Your task to perform on an android device: What's on my calendar tomorrow? Image 0: 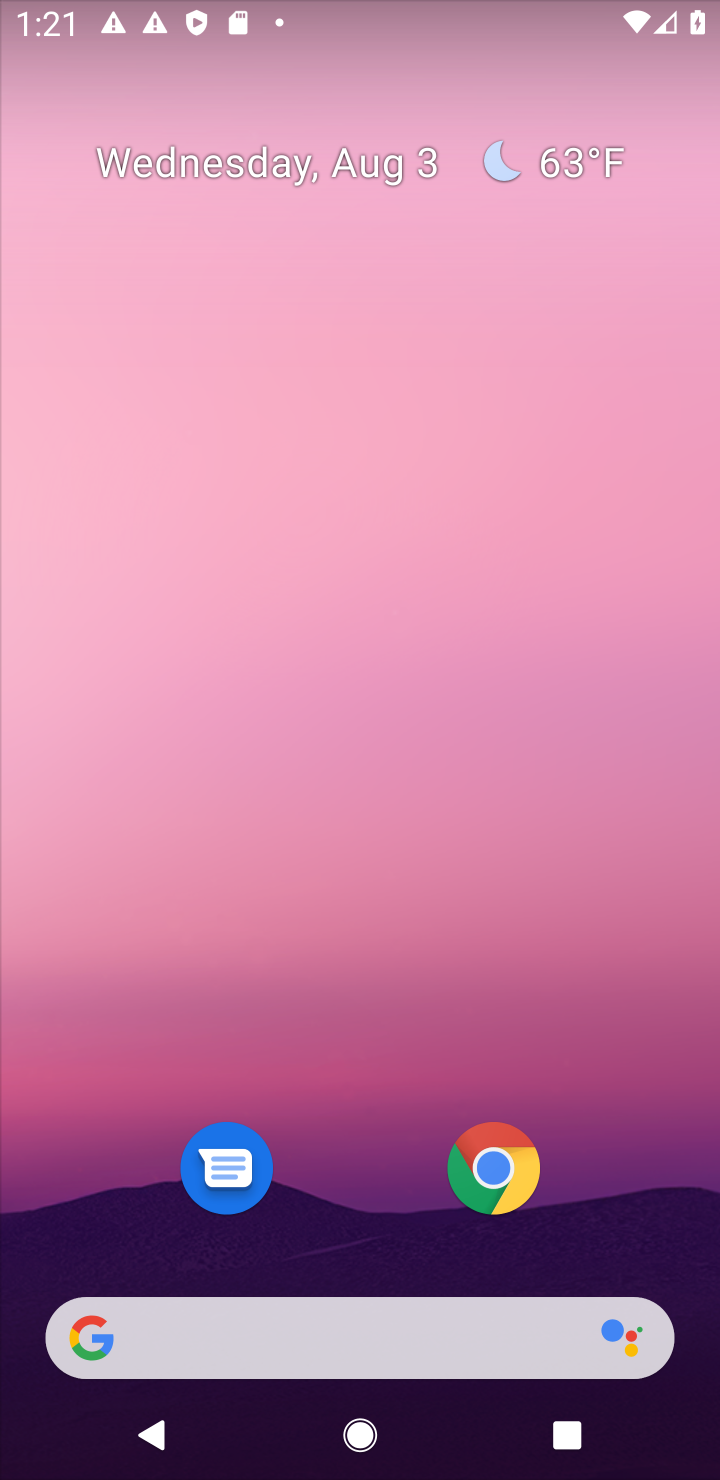
Step 0: drag from (678, 1215) to (616, 387)
Your task to perform on an android device: What's on my calendar tomorrow? Image 1: 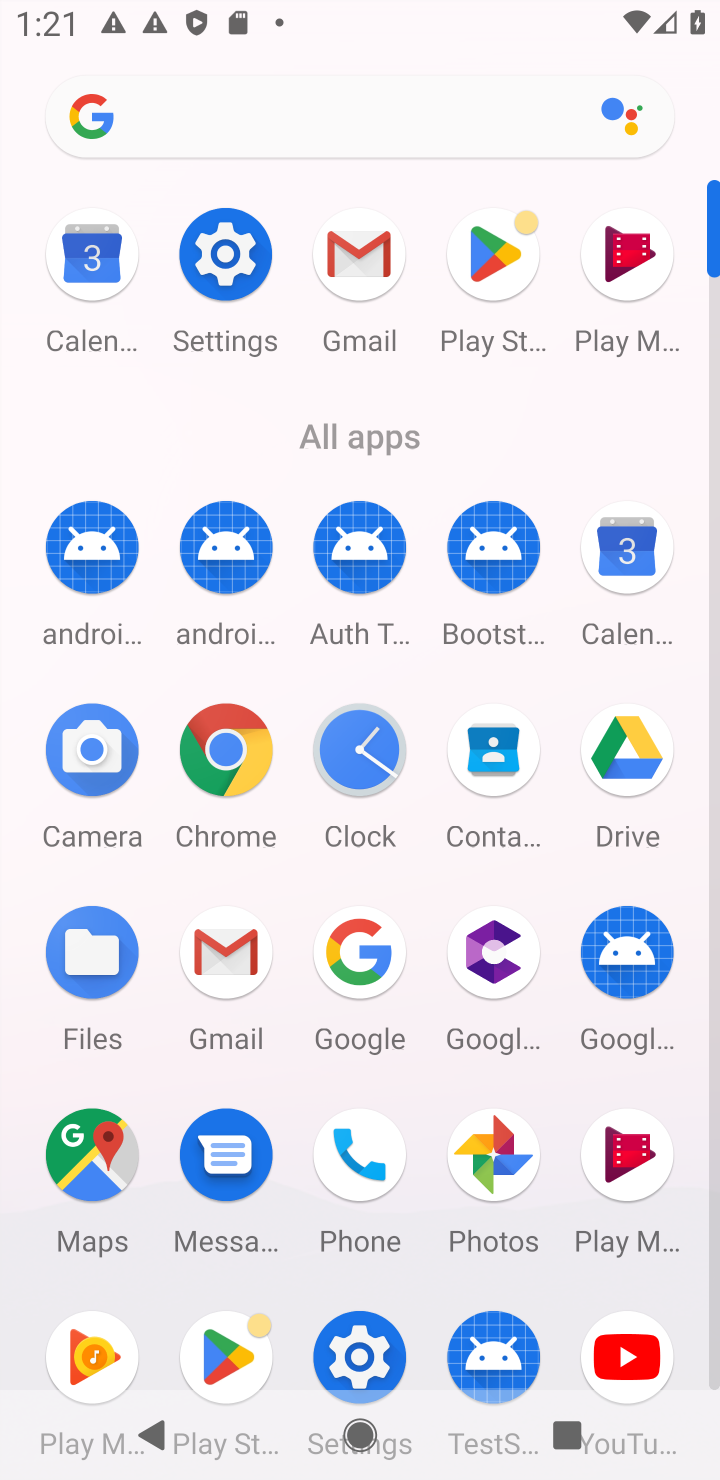
Step 1: click (626, 557)
Your task to perform on an android device: What's on my calendar tomorrow? Image 2: 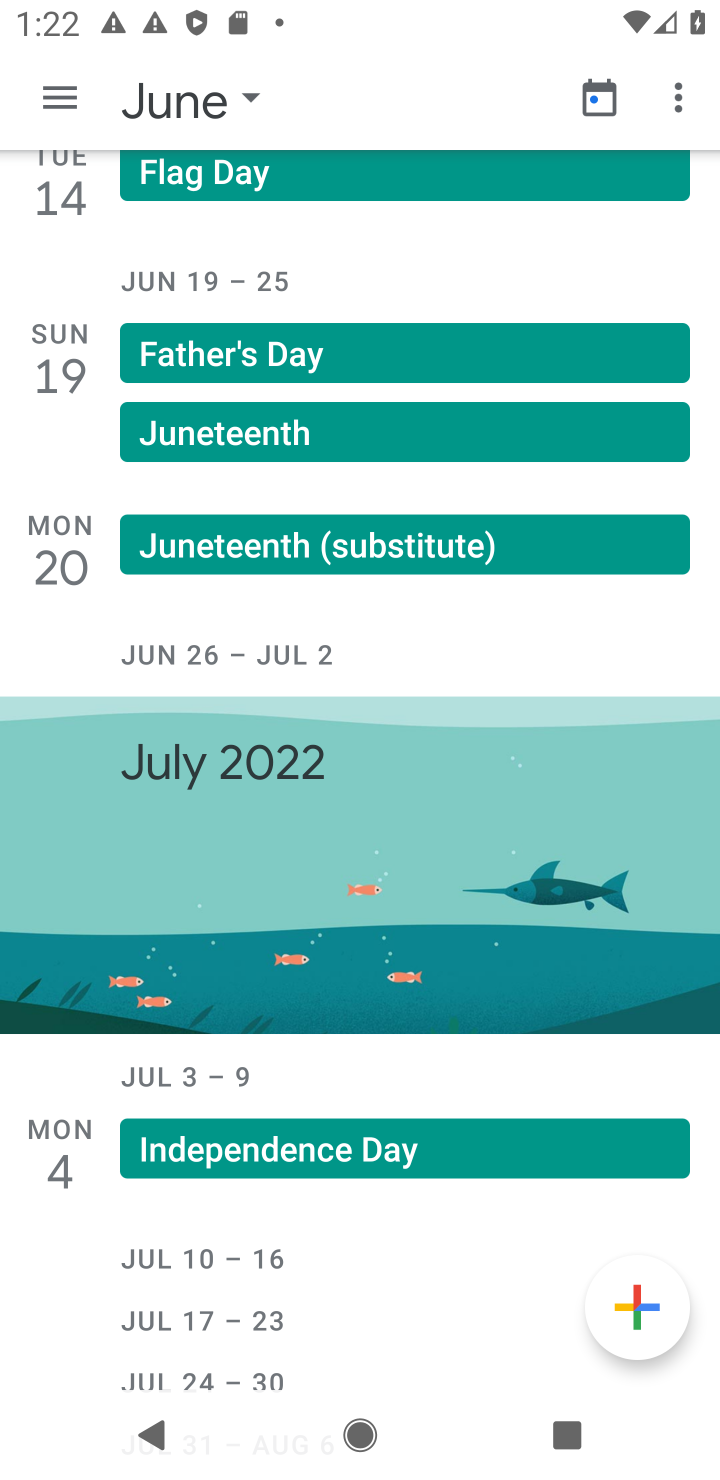
Step 2: click (56, 98)
Your task to perform on an android device: What's on my calendar tomorrow? Image 3: 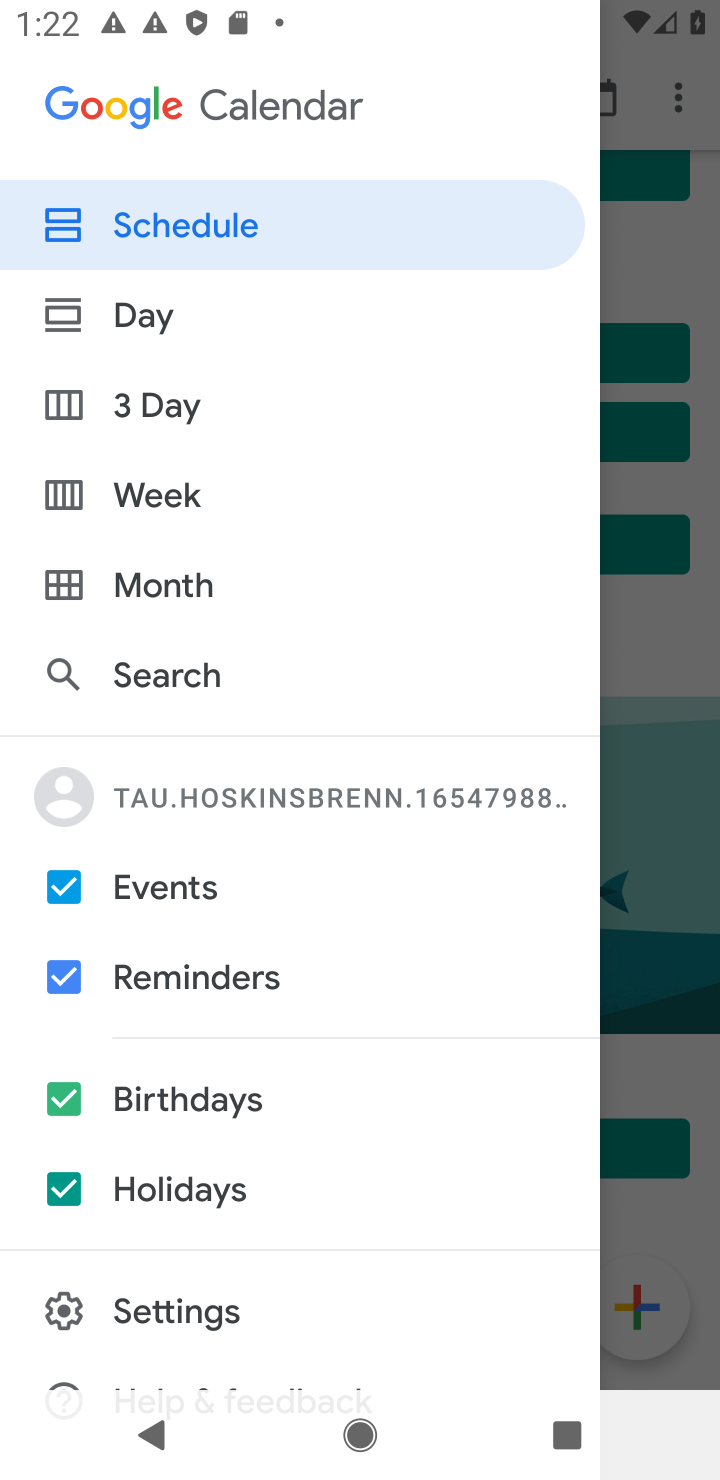
Step 3: click (144, 328)
Your task to perform on an android device: What's on my calendar tomorrow? Image 4: 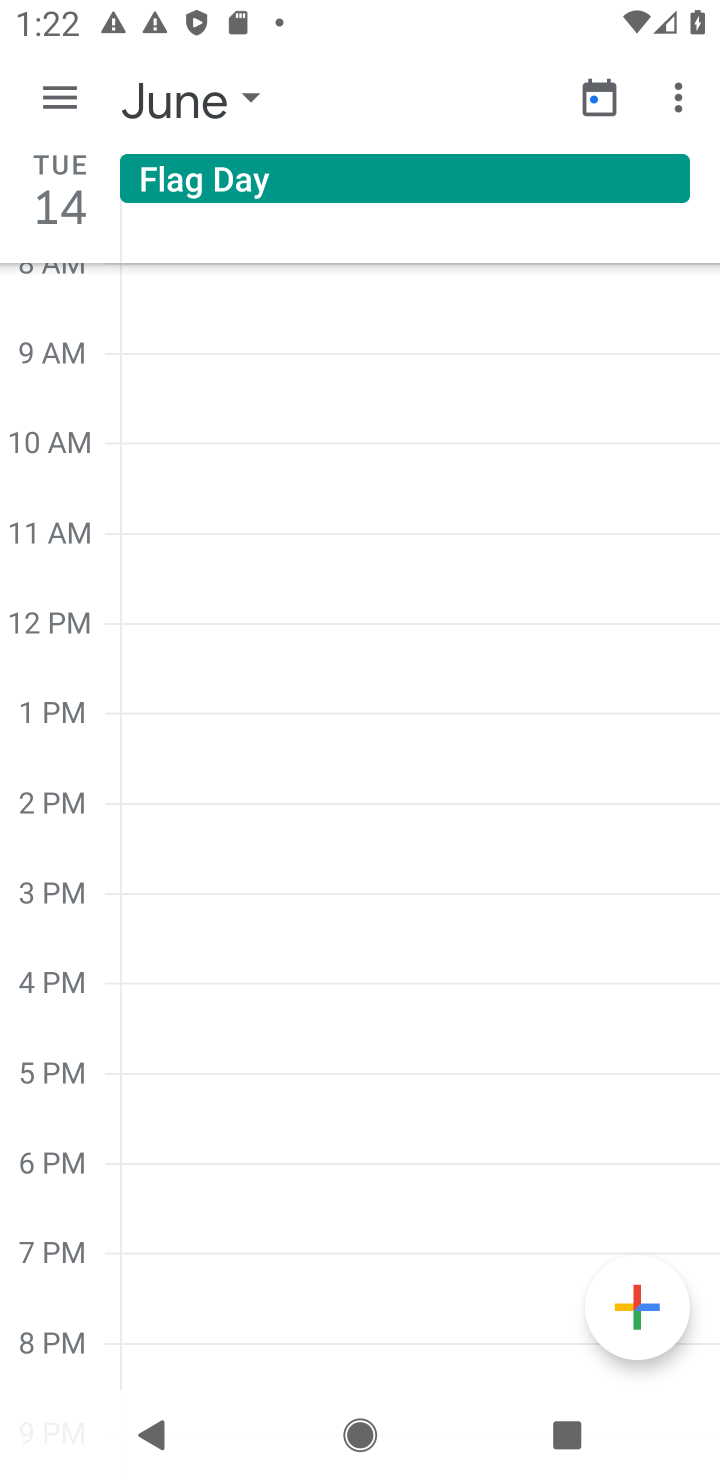
Step 4: click (254, 95)
Your task to perform on an android device: What's on my calendar tomorrow? Image 5: 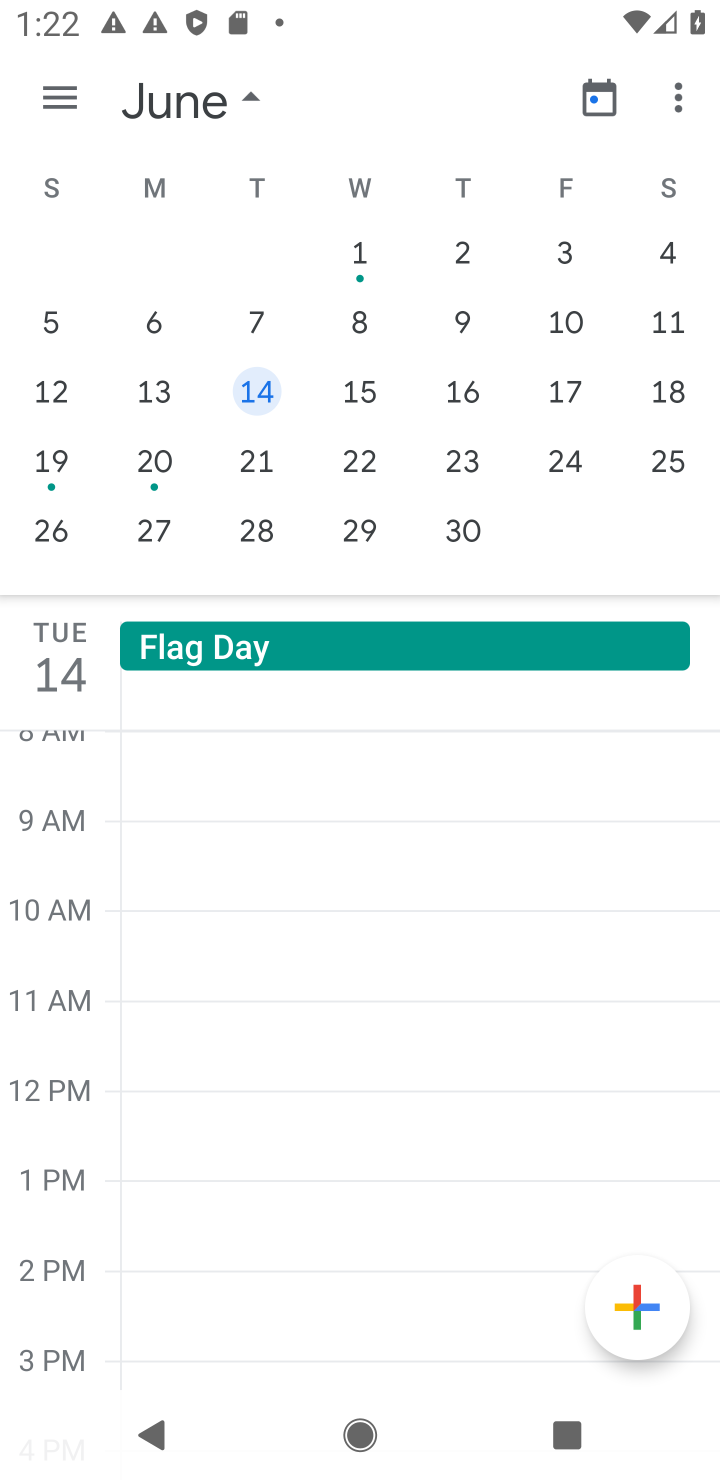
Step 5: click (664, 397)
Your task to perform on an android device: What's on my calendar tomorrow? Image 6: 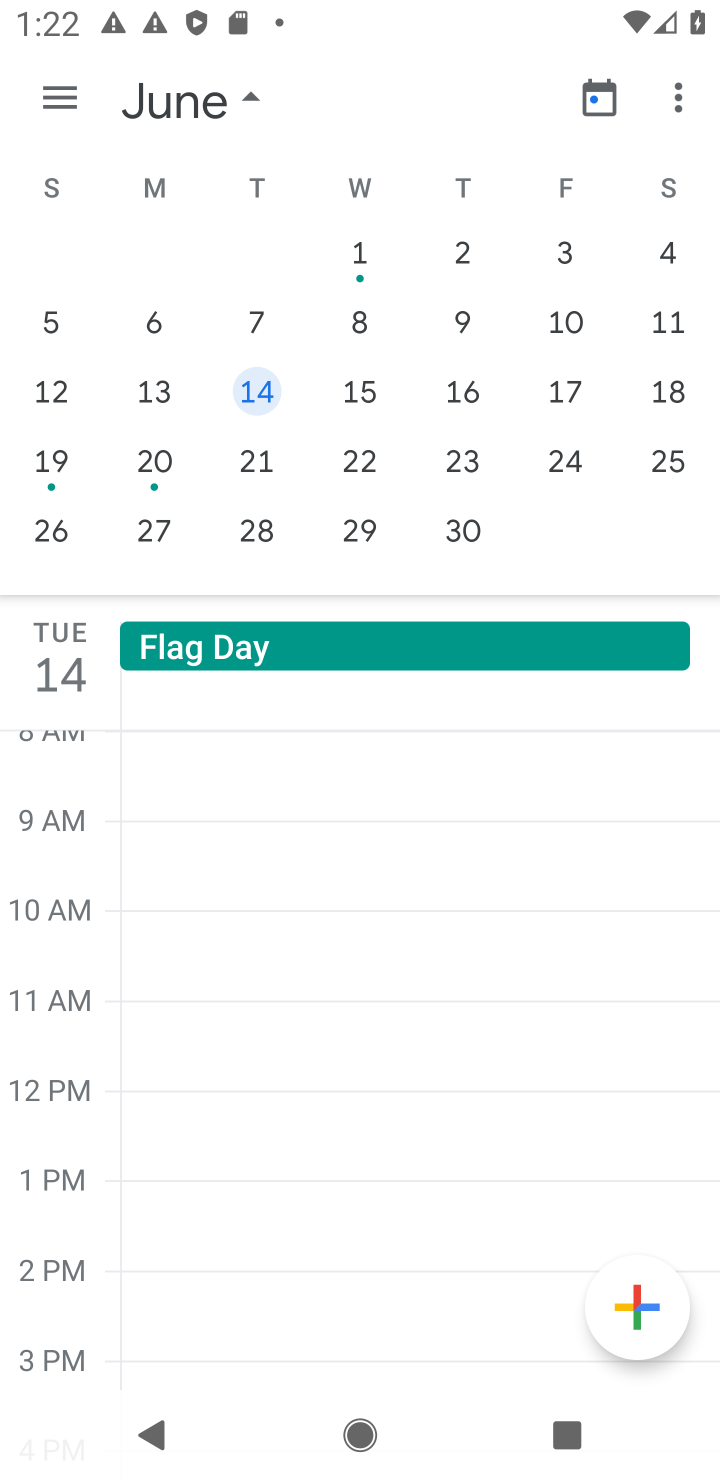
Step 6: click (362, 397)
Your task to perform on an android device: What's on my calendar tomorrow? Image 7: 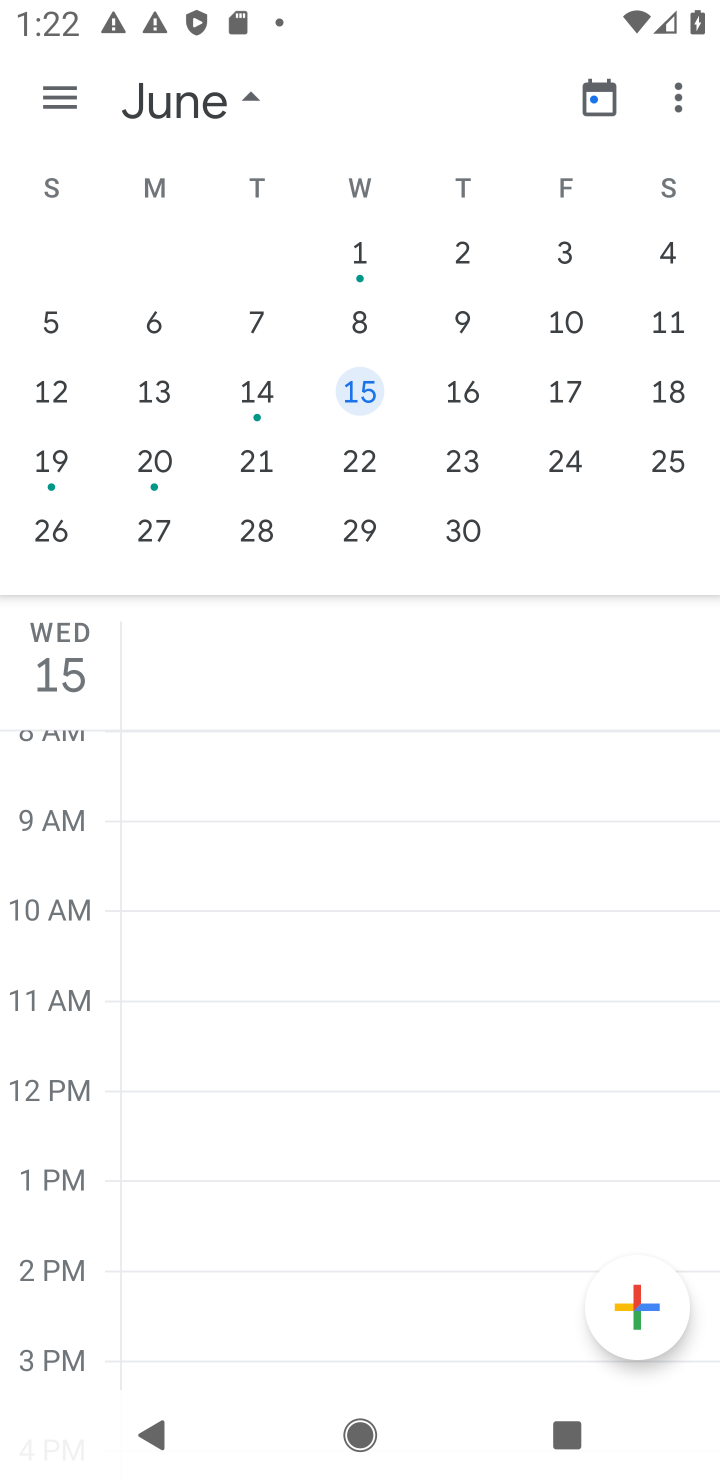
Step 7: drag from (349, 982) to (368, 281)
Your task to perform on an android device: What's on my calendar tomorrow? Image 8: 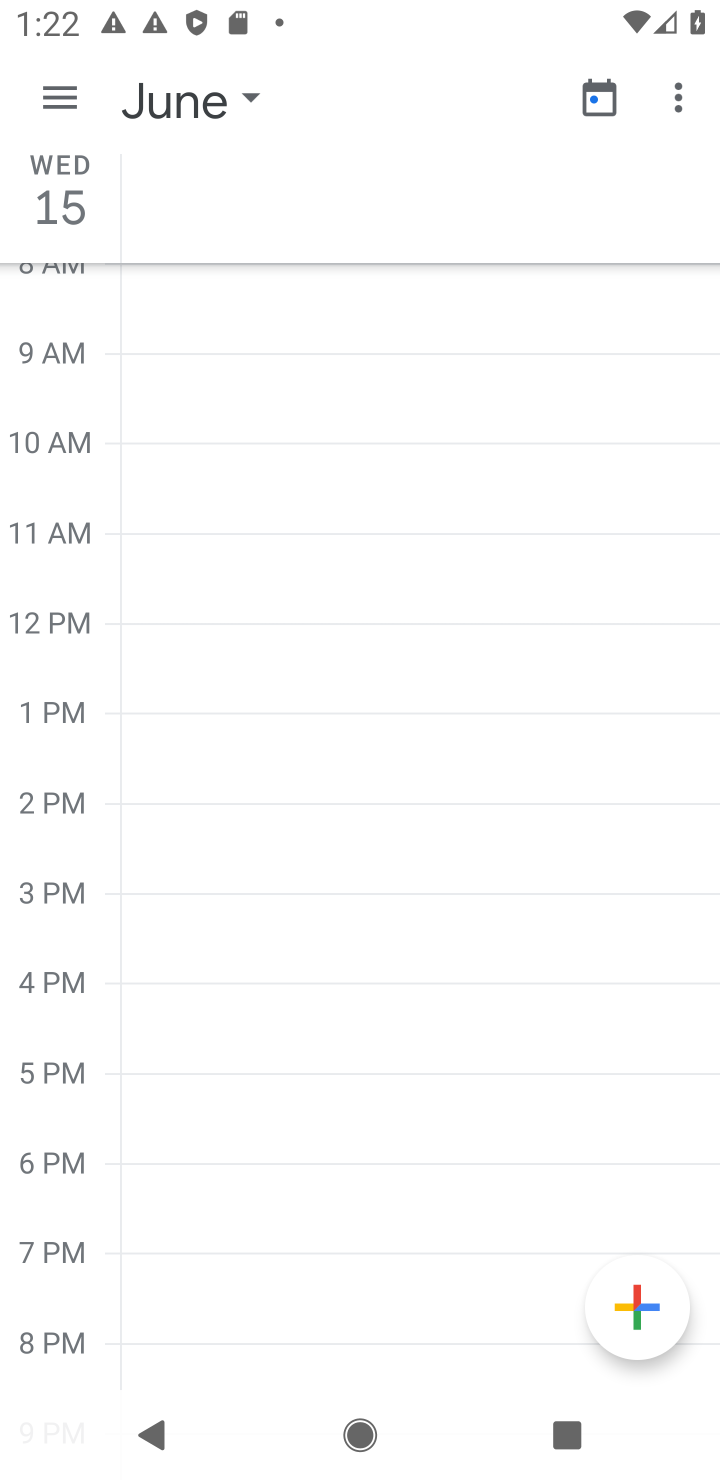
Step 8: drag from (388, 432) to (353, 903)
Your task to perform on an android device: What's on my calendar tomorrow? Image 9: 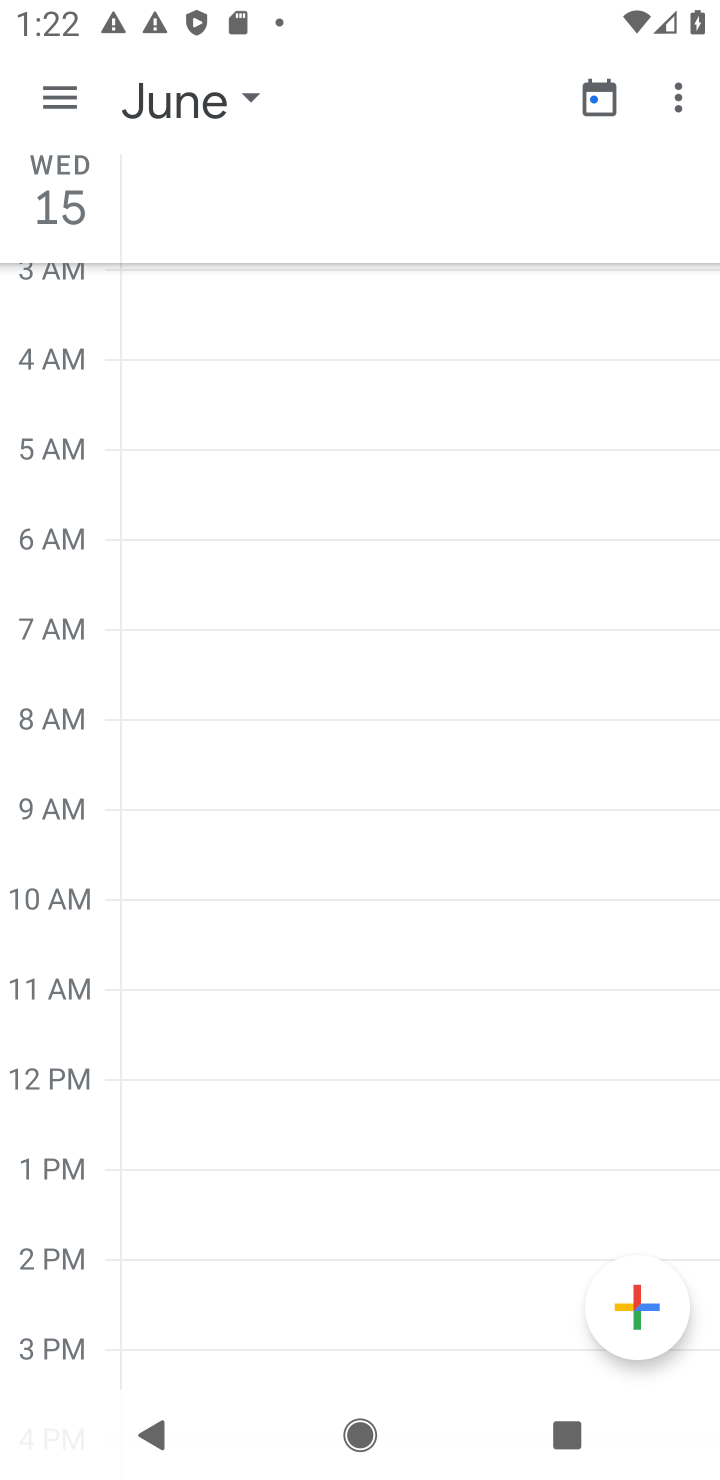
Step 9: drag from (407, 458) to (385, 990)
Your task to perform on an android device: What's on my calendar tomorrow? Image 10: 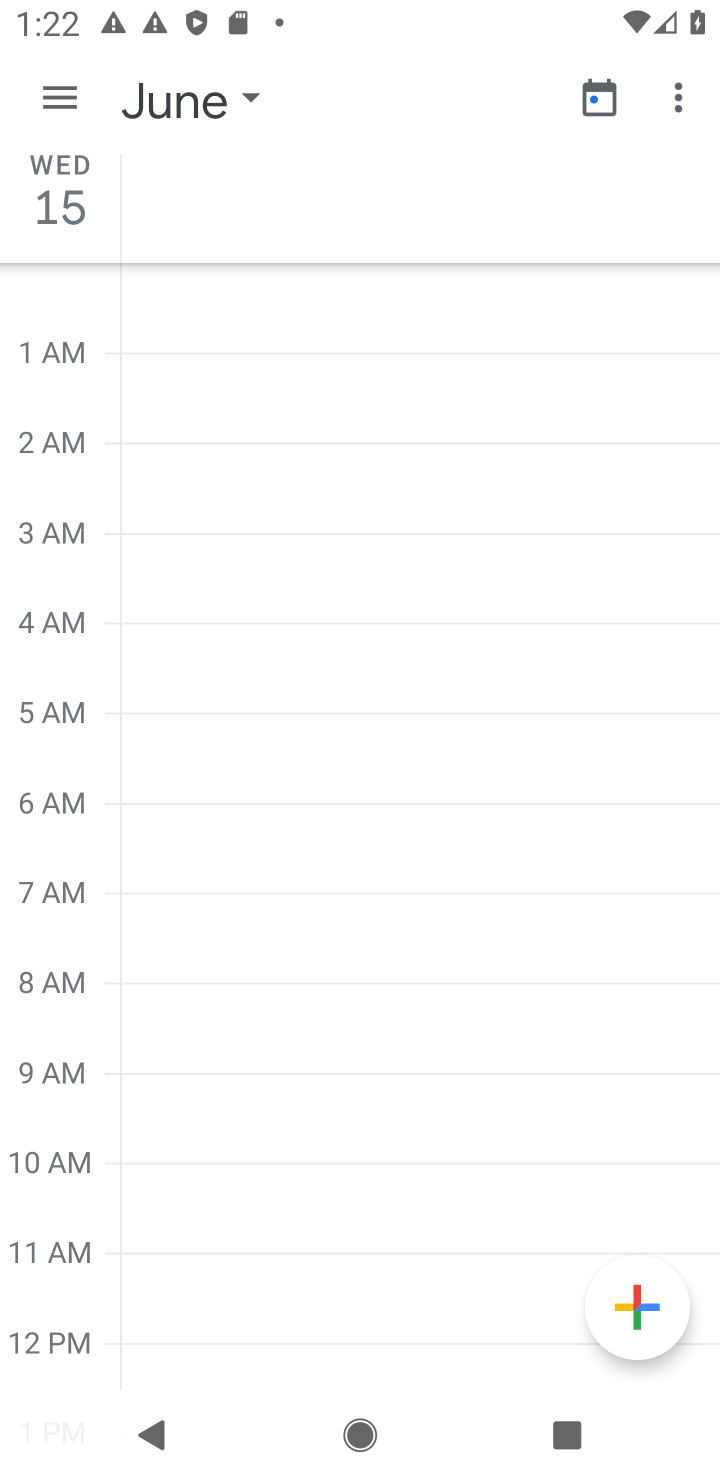
Step 10: click (449, 482)
Your task to perform on an android device: What's on my calendar tomorrow? Image 11: 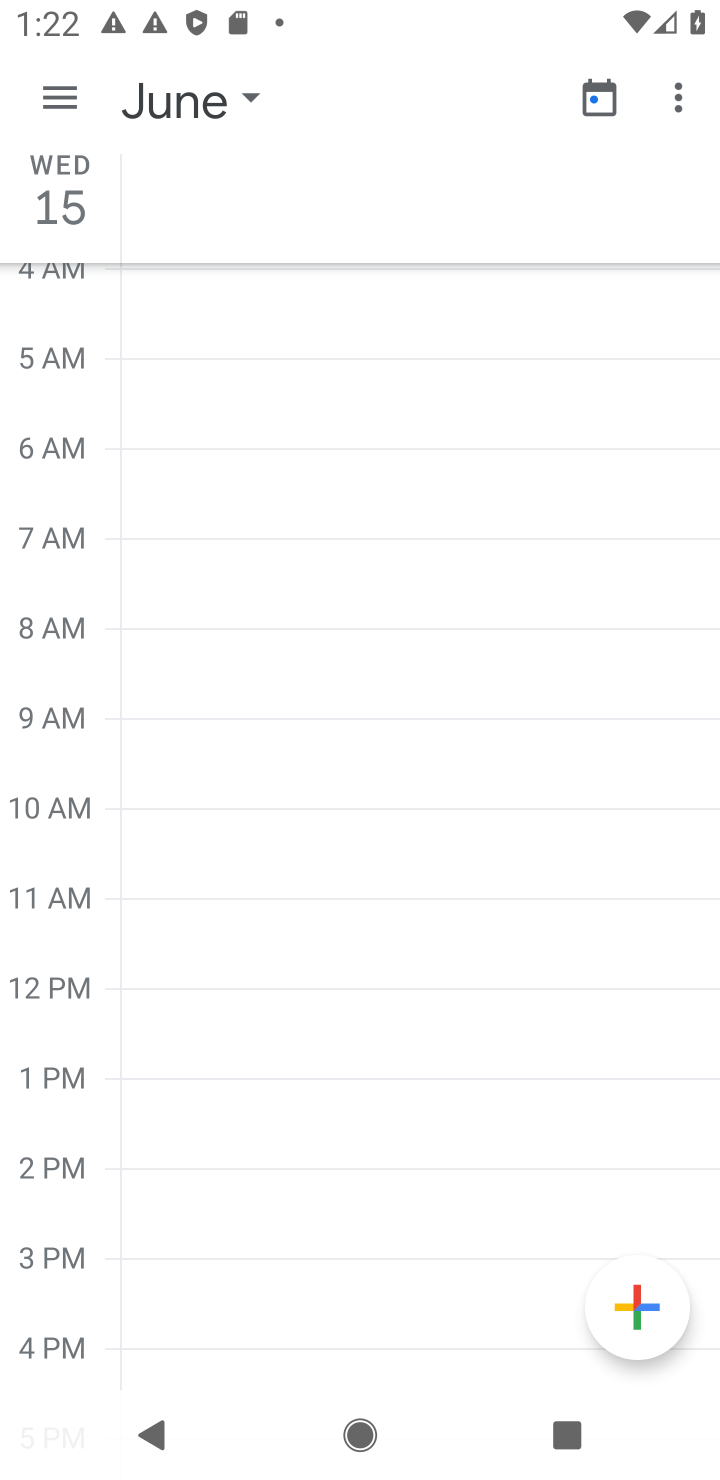
Step 11: task complete